Your task to perform on an android device: Go to network settings Image 0: 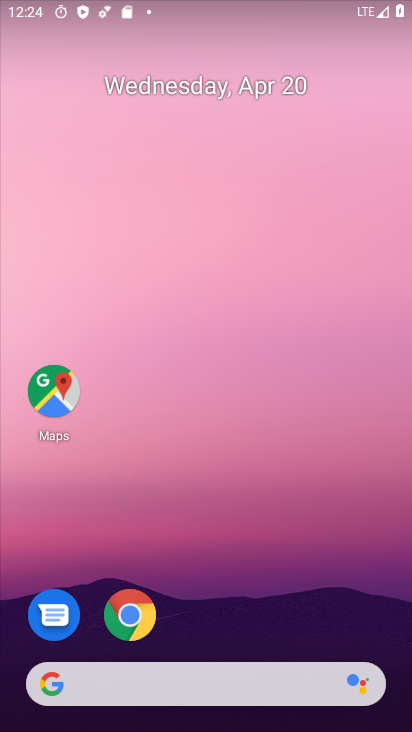
Step 0: drag from (219, 553) to (307, 154)
Your task to perform on an android device: Go to network settings Image 1: 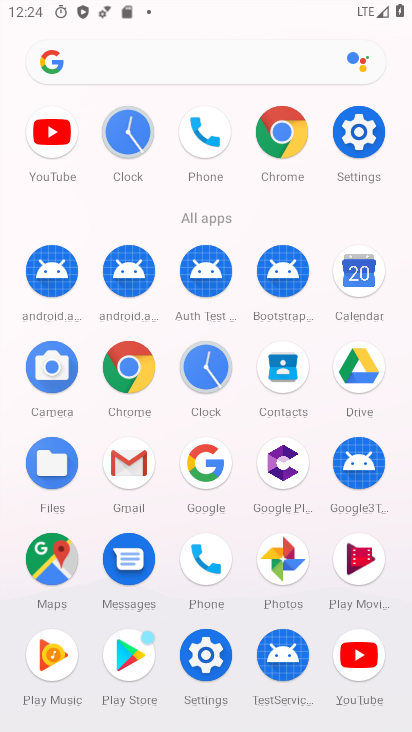
Step 1: click (204, 652)
Your task to perform on an android device: Go to network settings Image 2: 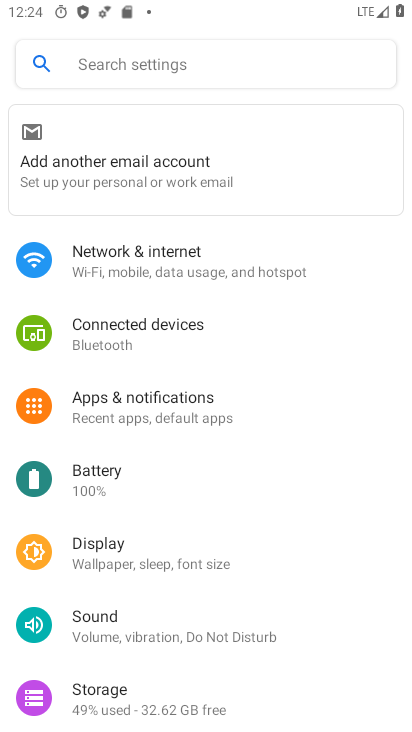
Step 2: click (219, 262)
Your task to perform on an android device: Go to network settings Image 3: 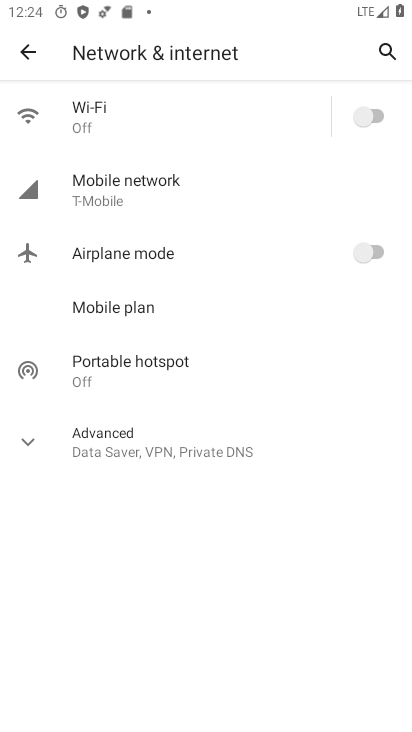
Step 3: task complete